Your task to perform on an android device: check storage Image 0: 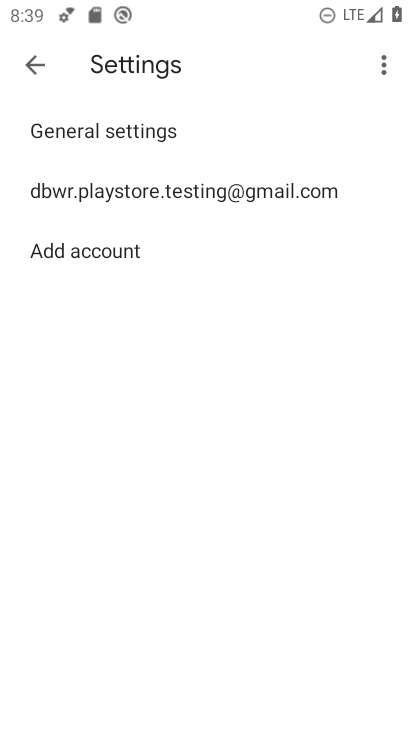
Step 0: press home button
Your task to perform on an android device: check storage Image 1: 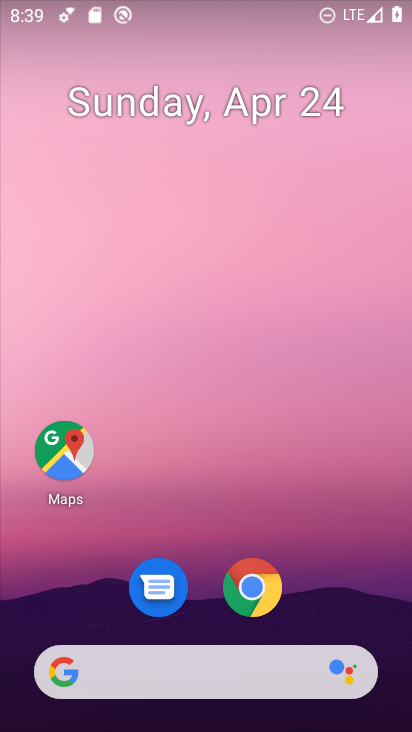
Step 1: drag from (383, 565) to (353, 89)
Your task to perform on an android device: check storage Image 2: 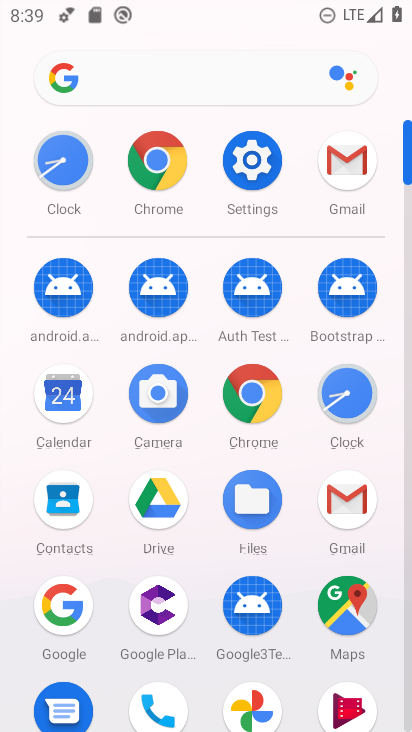
Step 2: click (242, 166)
Your task to perform on an android device: check storage Image 3: 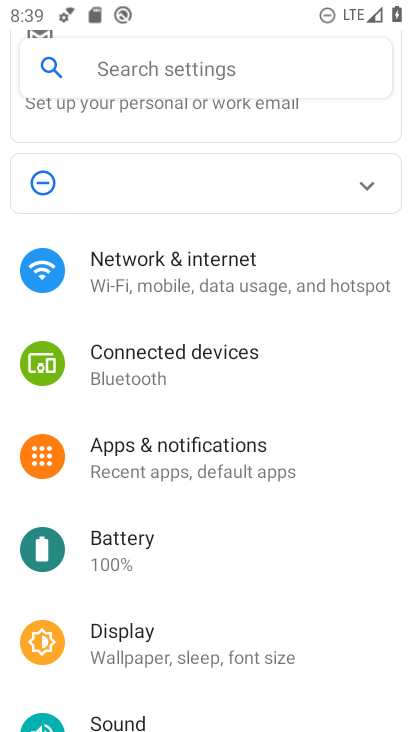
Step 3: drag from (260, 548) to (320, 250)
Your task to perform on an android device: check storage Image 4: 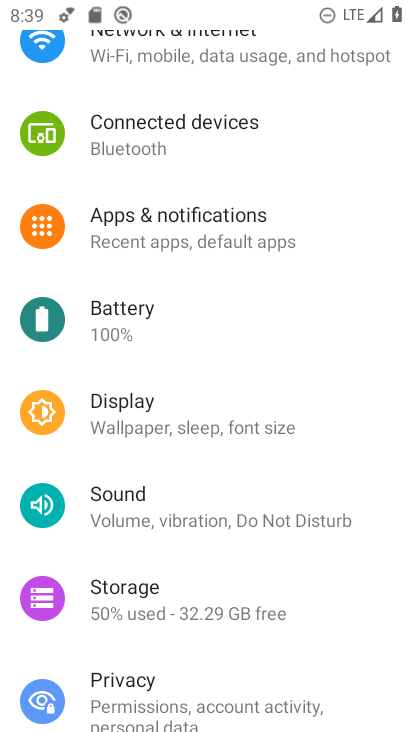
Step 4: drag from (335, 549) to (371, 221)
Your task to perform on an android device: check storage Image 5: 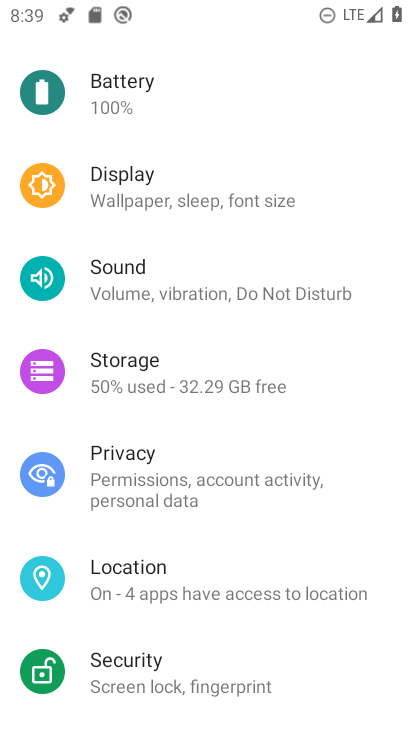
Step 5: drag from (364, 357) to (359, 147)
Your task to perform on an android device: check storage Image 6: 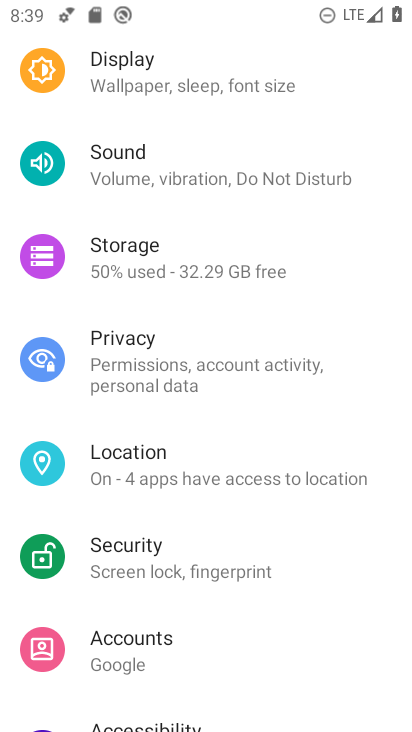
Step 6: click (202, 270)
Your task to perform on an android device: check storage Image 7: 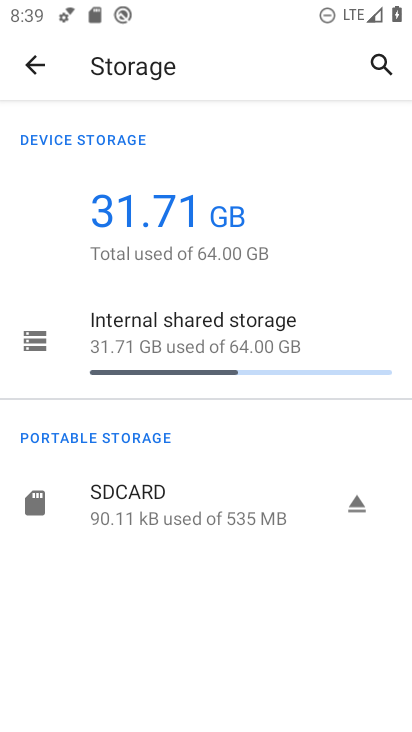
Step 7: click (19, 358)
Your task to perform on an android device: check storage Image 8: 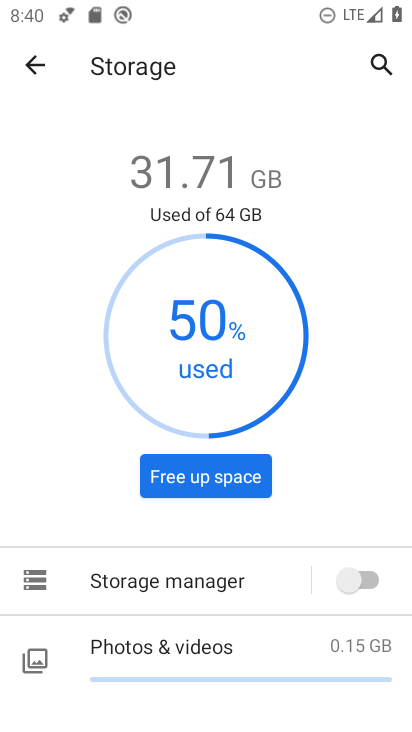
Step 8: task complete